Your task to perform on an android device: turn on bluetooth scan Image 0: 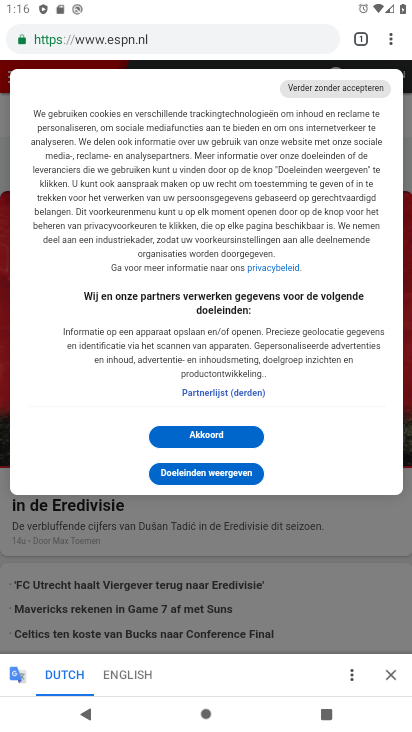
Step 0: drag from (275, 601) to (407, 285)
Your task to perform on an android device: turn on bluetooth scan Image 1: 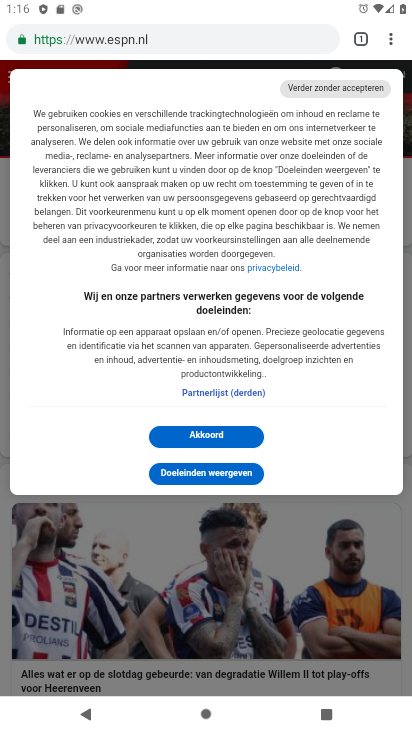
Step 1: press home button
Your task to perform on an android device: turn on bluetooth scan Image 2: 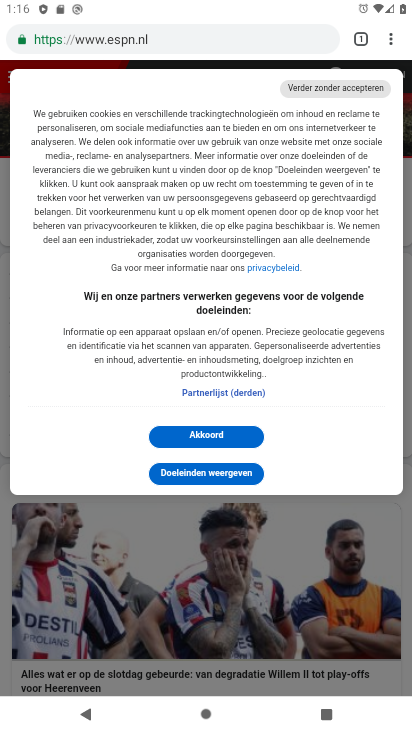
Step 2: drag from (407, 285) to (396, 508)
Your task to perform on an android device: turn on bluetooth scan Image 3: 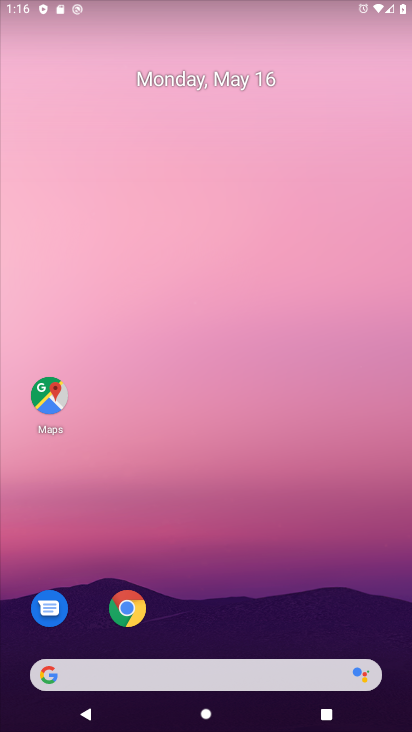
Step 3: drag from (281, 586) to (322, 182)
Your task to perform on an android device: turn on bluetooth scan Image 4: 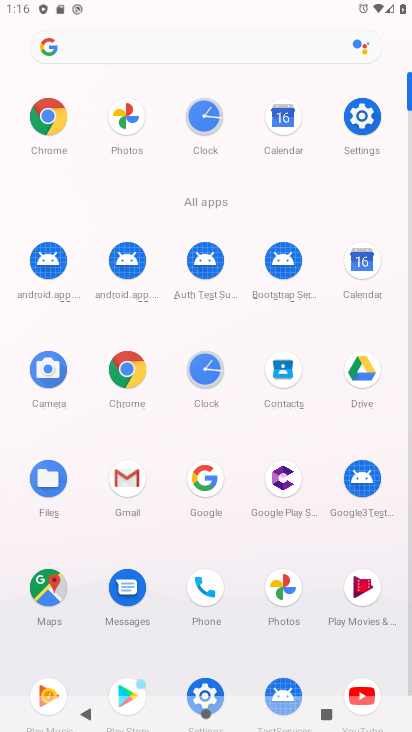
Step 4: click (356, 130)
Your task to perform on an android device: turn on bluetooth scan Image 5: 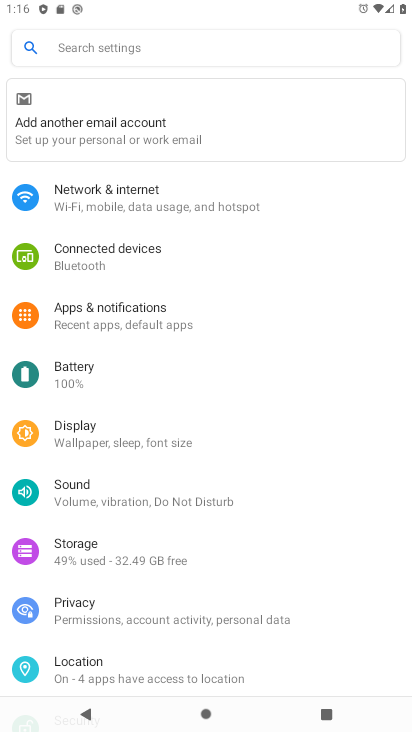
Step 5: click (138, 679)
Your task to perform on an android device: turn on bluetooth scan Image 6: 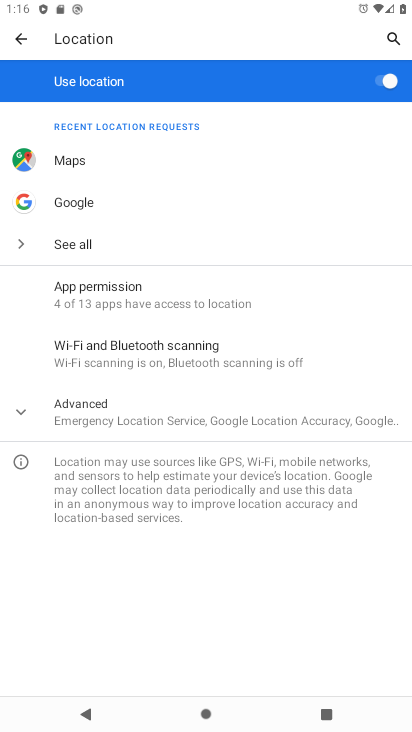
Step 6: click (26, 410)
Your task to perform on an android device: turn on bluetooth scan Image 7: 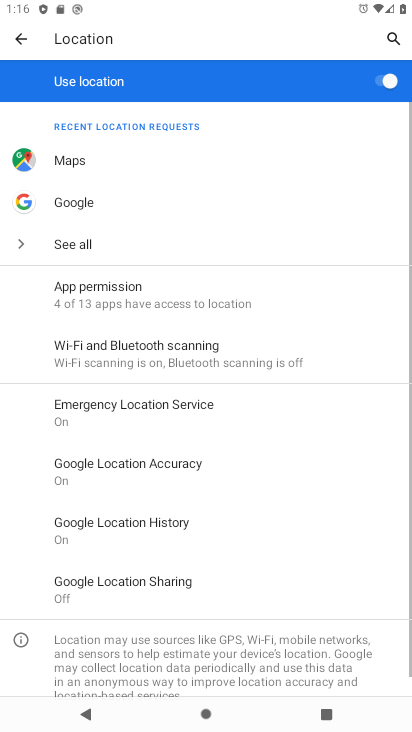
Step 7: click (98, 353)
Your task to perform on an android device: turn on bluetooth scan Image 8: 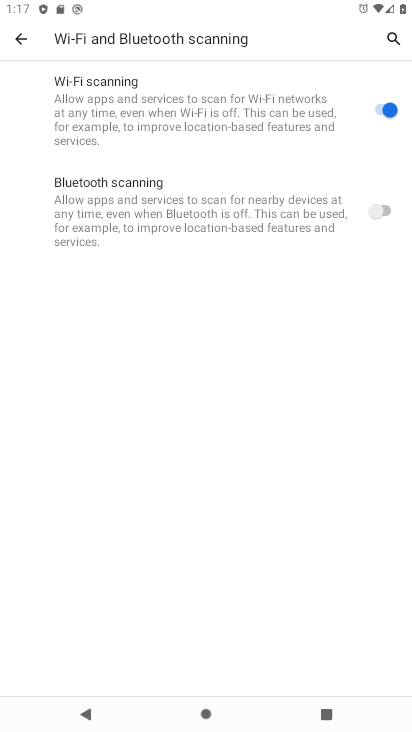
Step 8: click (381, 216)
Your task to perform on an android device: turn on bluetooth scan Image 9: 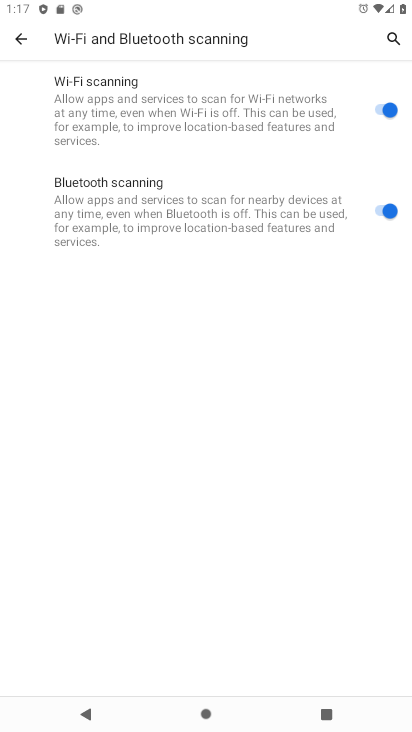
Step 9: task complete